Your task to perform on an android device: open a bookmark in the chrome app Image 0: 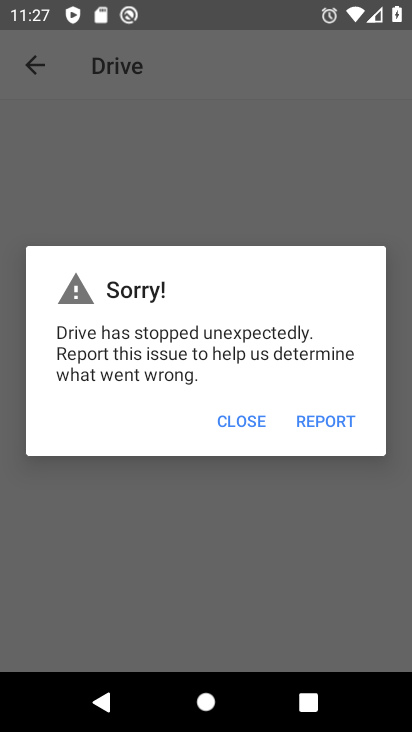
Step 0: press home button
Your task to perform on an android device: open a bookmark in the chrome app Image 1: 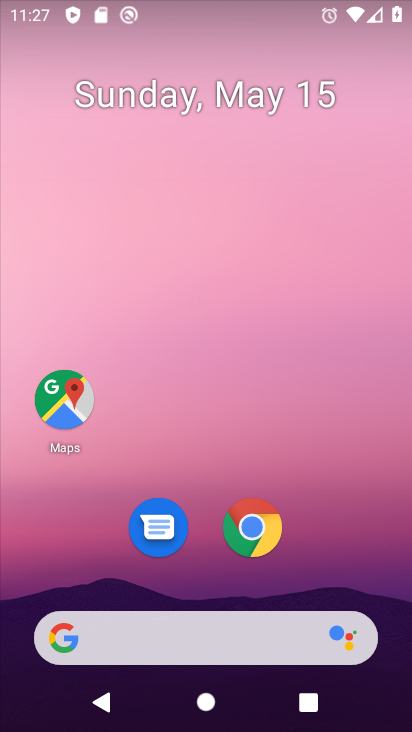
Step 1: click (265, 532)
Your task to perform on an android device: open a bookmark in the chrome app Image 2: 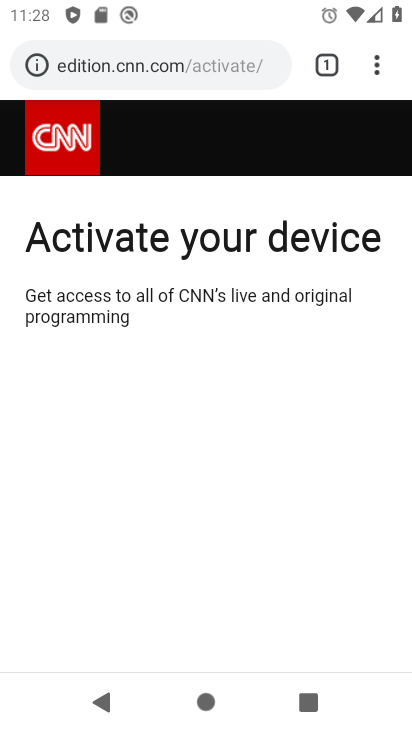
Step 2: click (387, 69)
Your task to perform on an android device: open a bookmark in the chrome app Image 3: 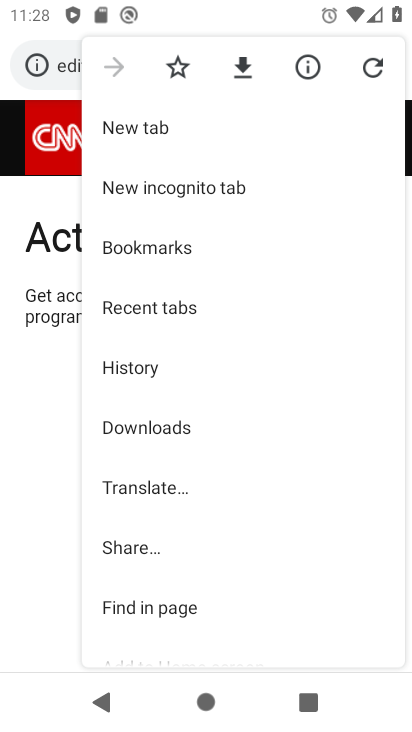
Step 3: click (229, 251)
Your task to perform on an android device: open a bookmark in the chrome app Image 4: 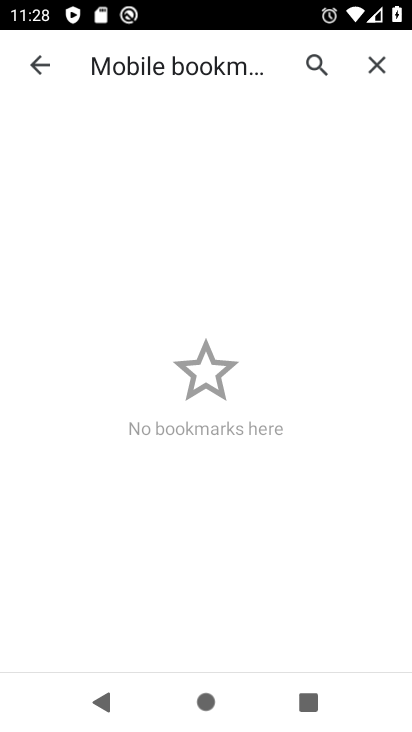
Step 4: task complete